Your task to perform on an android device: Open the web browser Image 0: 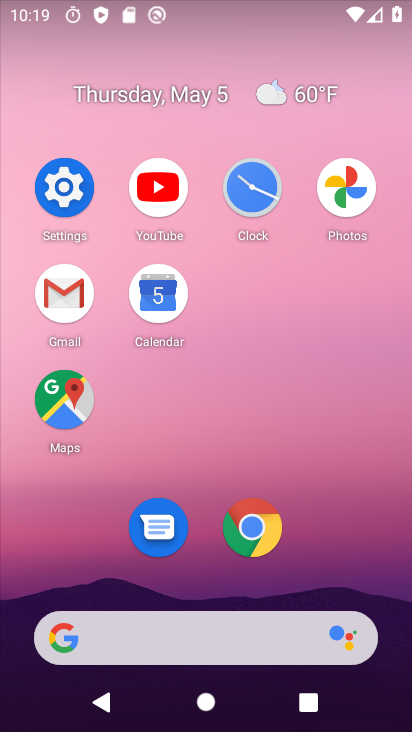
Step 0: click (248, 516)
Your task to perform on an android device: Open the web browser Image 1: 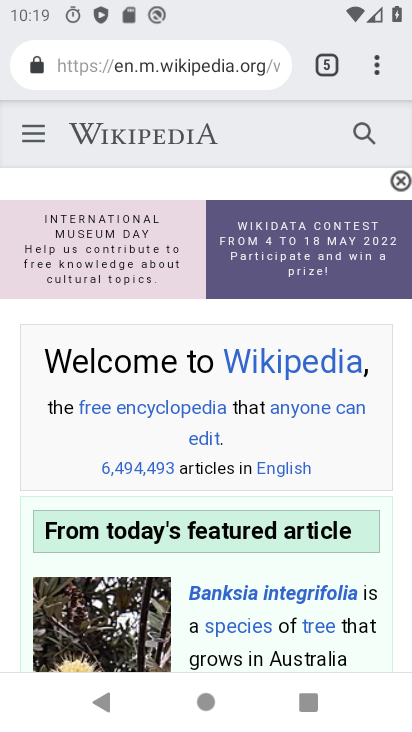
Step 1: task complete